Your task to perform on an android device: turn on airplane mode Image 0: 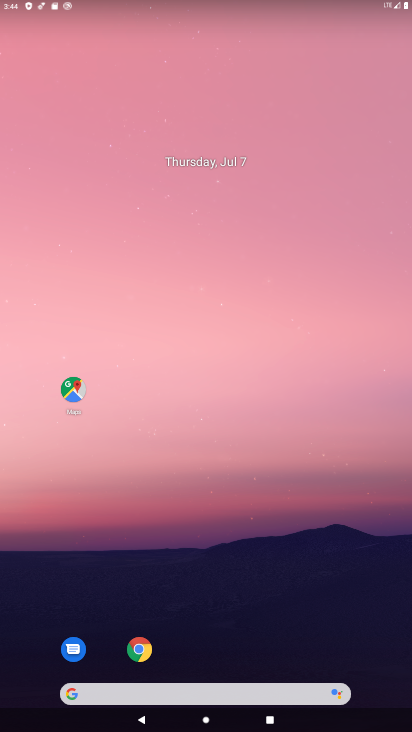
Step 0: click (296, 125)
Your task to perform on an android device: turn on airplane mode Image 1: 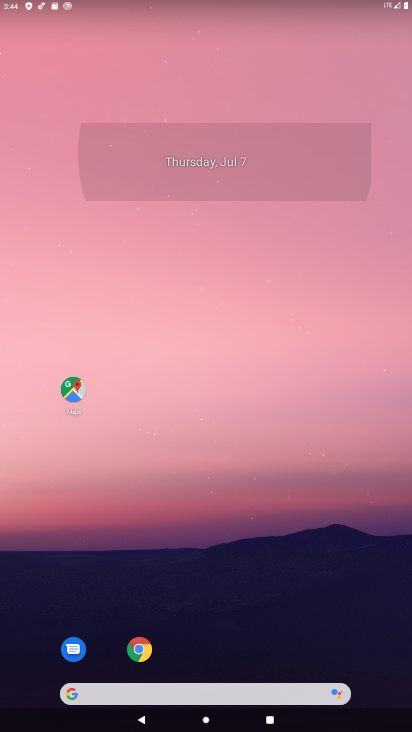
Step 1: drag from (277, 308) to (291, 214)
Your task to perform on an android device: turn on airplane mode Image 2: 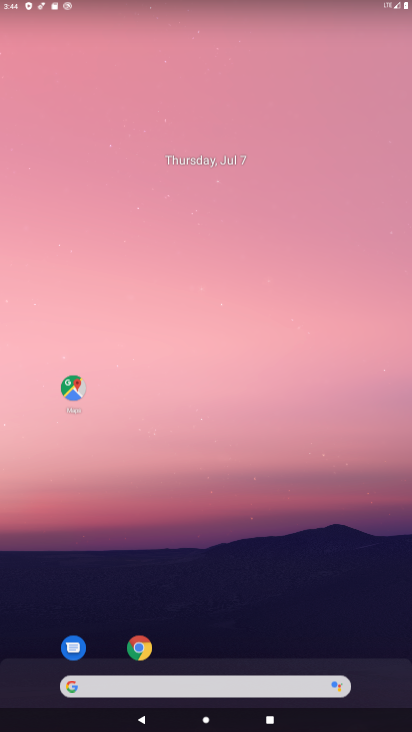
Step 2: drag from (218, 538) to (273, 173)
Your task to perform on an android device: turn on airplane mode Image 3: 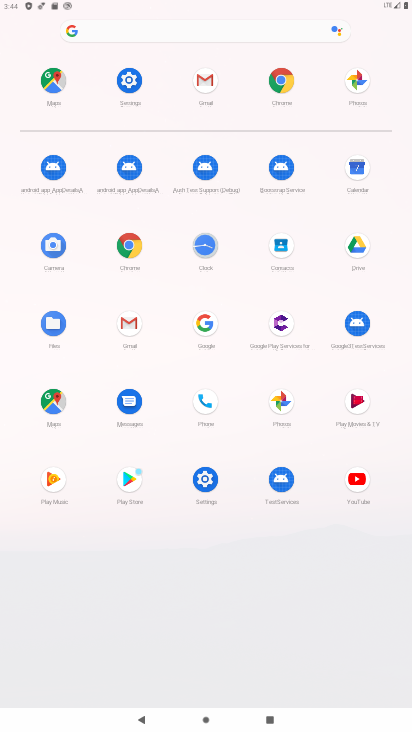
Step 3: click (128, 88)
Your task to perform on an android device: turn on airplane mode Image 4: 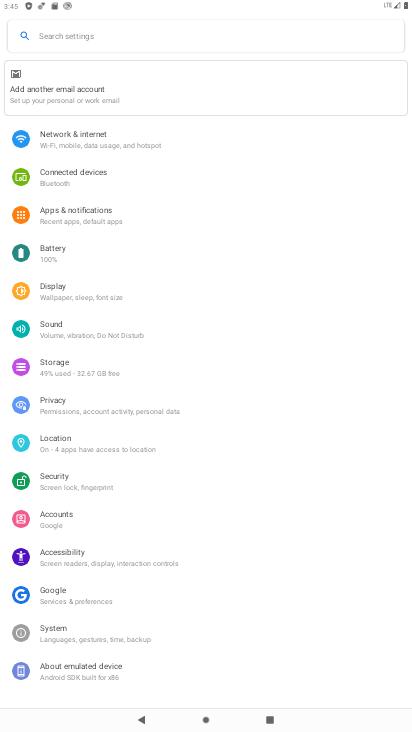
Step 4: click (129, 137)
Your task to perform on an android device: turn on airplane mode Image 5: 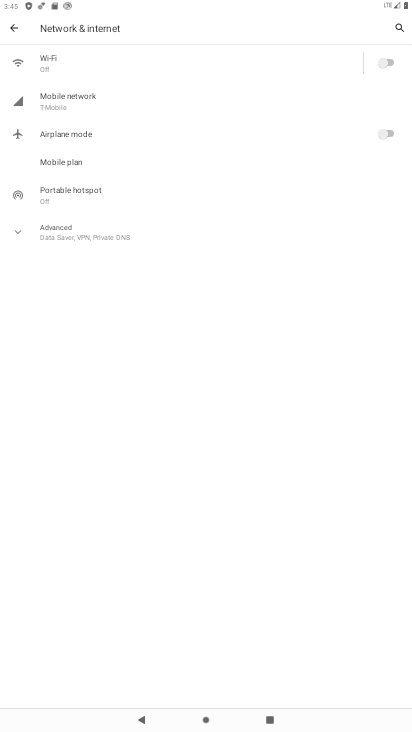
Step 5: click (172, 138)
Your task to perform on an android device: turn on airplane mode Image 6: 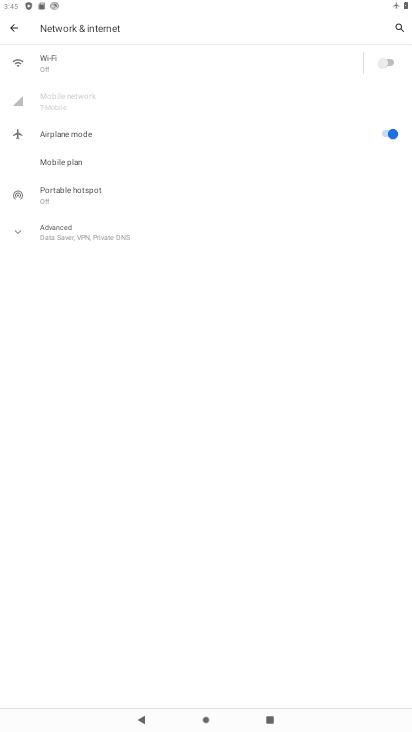
Step 6: task complete